Your task to perform on an android device: Open calendar and show me the third week of next month Image 0: 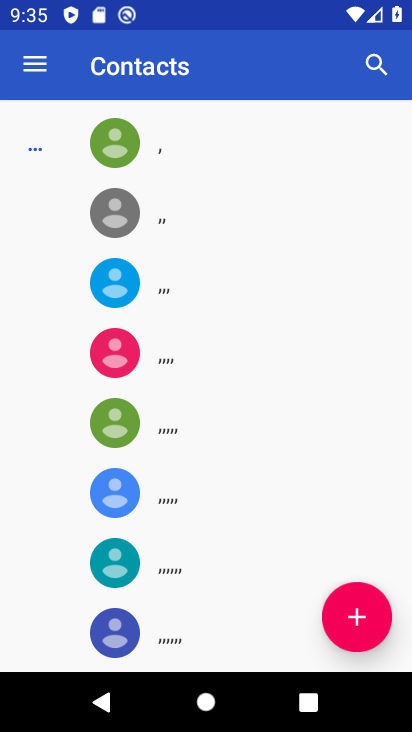
Step 0: press back button
Your task to perform on an android device: Open calendar and show me the third week of next month Image 1: 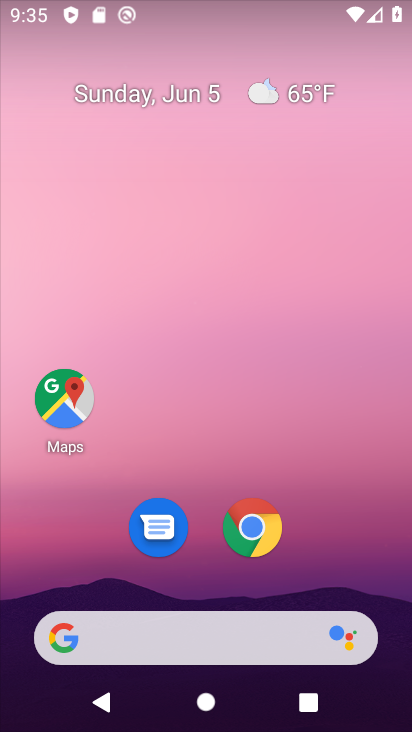
Step 1: drag from (152, 572) to (286, 1)
Your task to perform on an android device: Open calendar and show me the third week of next month Image 2: 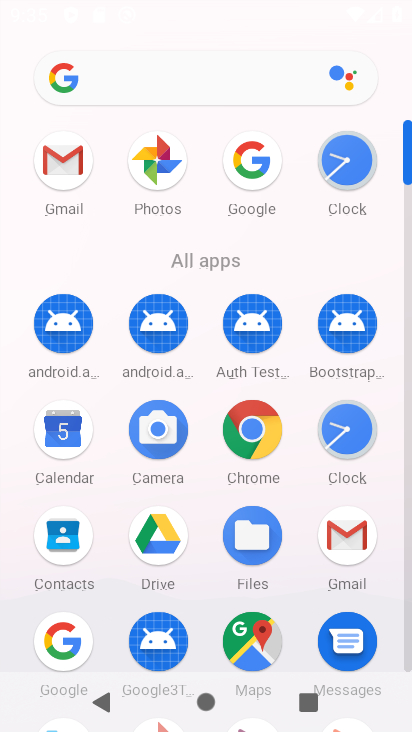
Step 2: click (67, 426)
Your task to perform on an android device: Open calendar and show me the third week of next month Image 3: 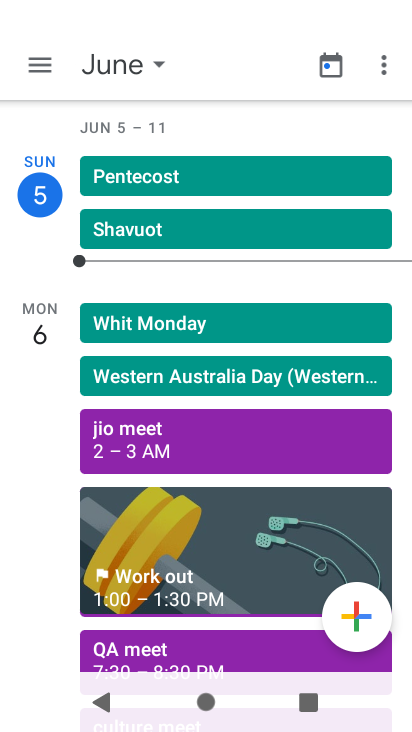
Step 3: click (126, 57)
Your task to perform on an android device: Open calendar and show me the third week of next month Image 4: 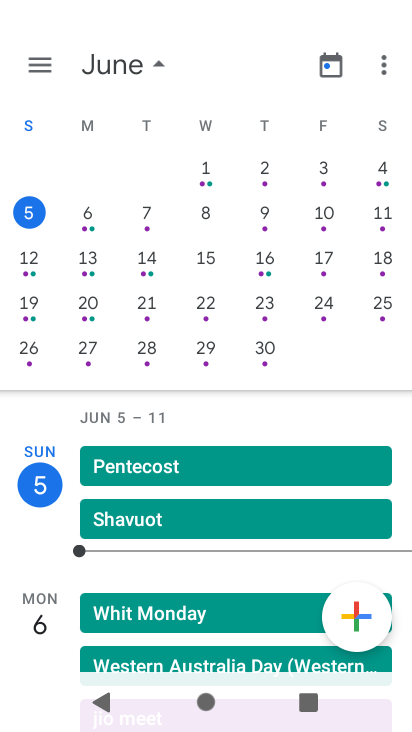
Step 4: drag from (380, 260) to (63, 242)
Your task to perform on an android device: Open calendar and show me the third week of next month Image 5: 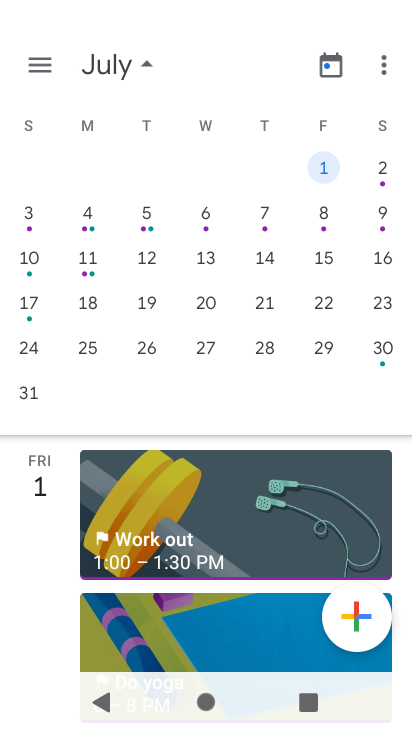
Step 5: click (83, 305)
Your task to perform on an android device: Open calendar and show me the third week of next month Image 6: 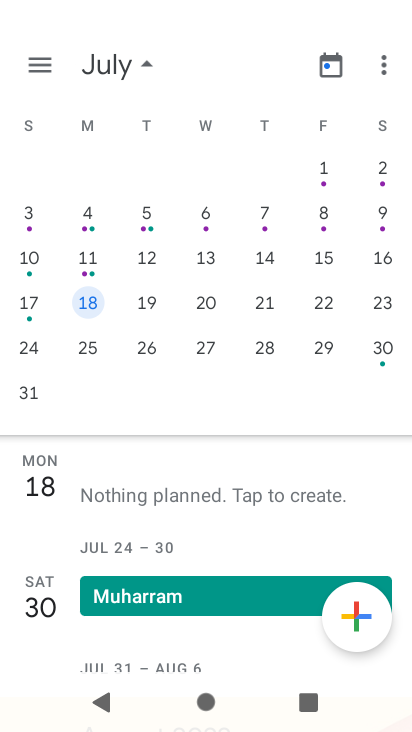
Step 6: task complete